Your task to perform on an android device: set default search engine in the chrome app Image 0: 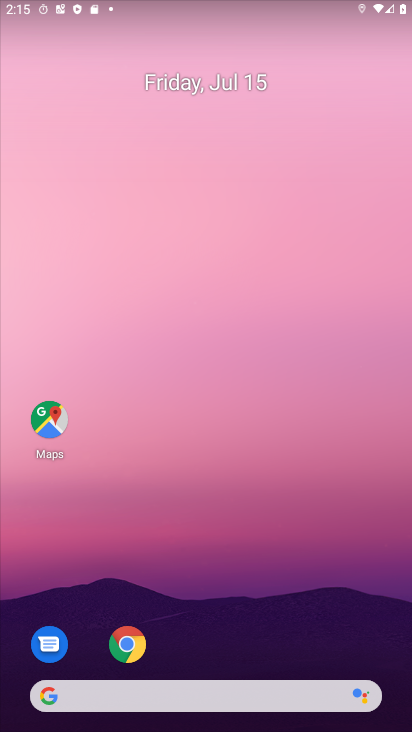
Step 0: drag from (369, 633) to (250, 111)
Your task to perform on an android device: set default search engine in the chrome app Image 1: 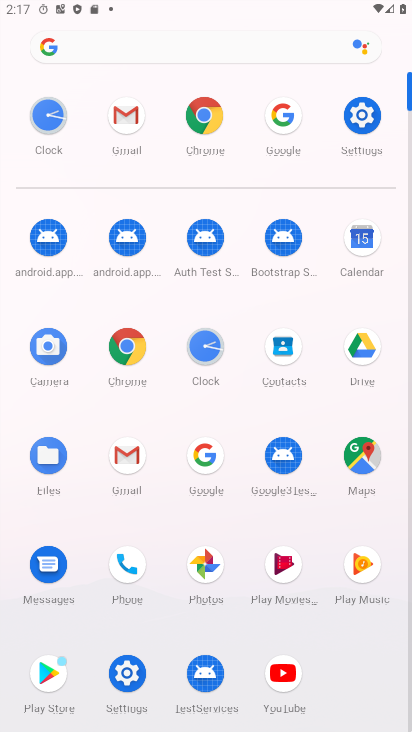
Step 1: click (126, 359)
Your task to perform on an android device: set default search engine in the chrome app Image 2: 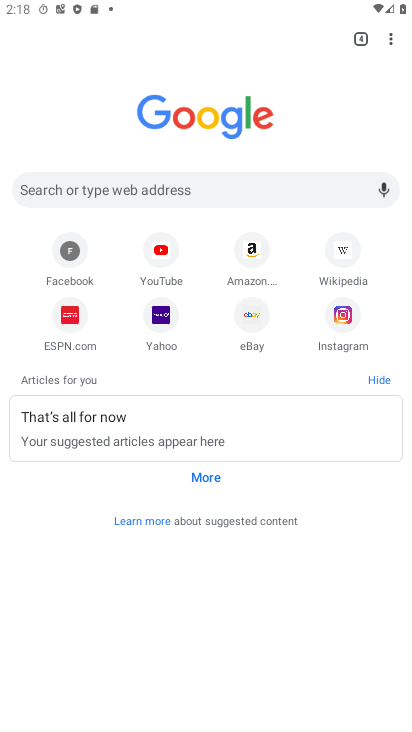
Step 2: click (387, 39)
Your task to perform on an android device: set default search engine in the chrome app Image 3: 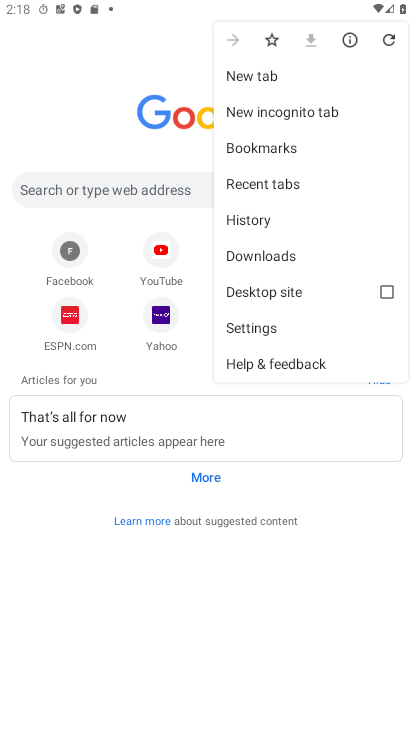
Step 3: click (273, 340)
Your task to perform on an android device: set default search engine in the chrome app Image 4: 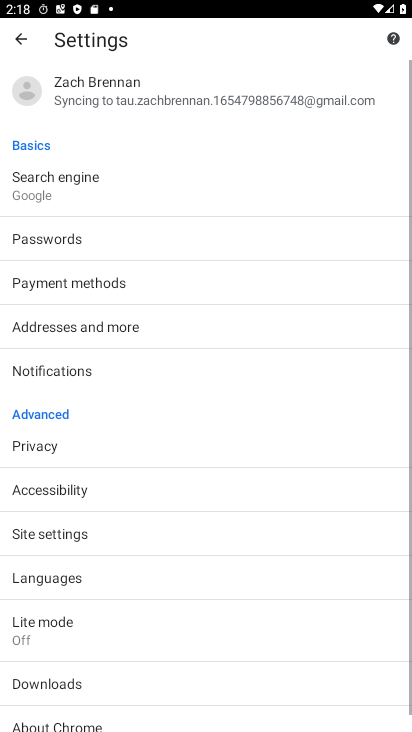
Step 4: click (95, 193)
Your task to perform on an android device: set default search engine in the chrome app Image 5: 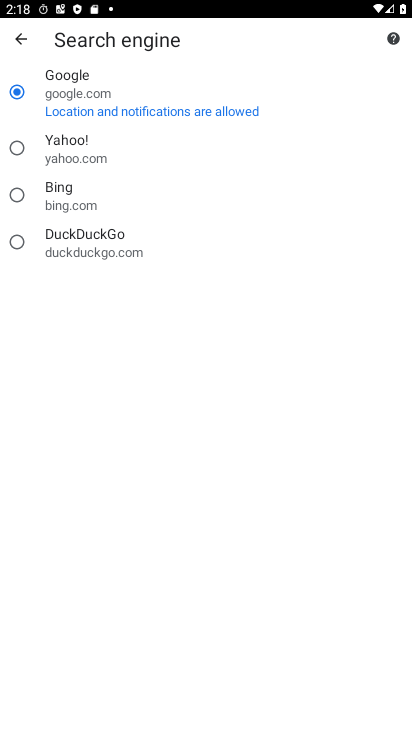
Step 5: click (65, 191)
Your task to perform on an android device: set default search engine in the chrome app Image 6: 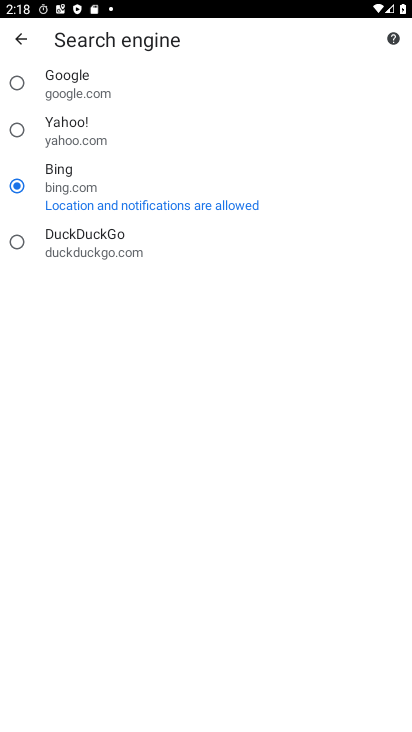
Step 6: task complete